Your task to perform on an android device: Go to Android settings Image 0: 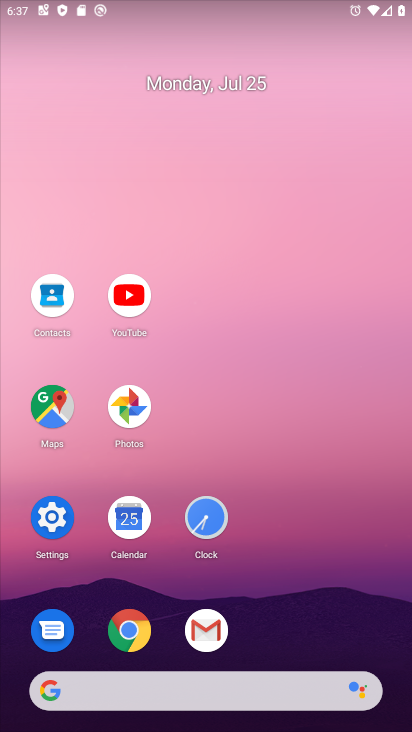
Step 0: click (45, 518)
Your task to perform on an android device: Go to Android settings Image 1: 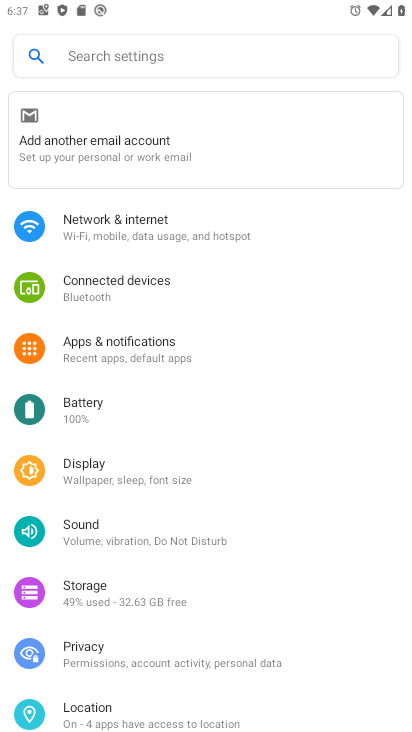
Step 1: task complete